Your task to perform on an android device: Do I have any events tomorrow? Image 0: 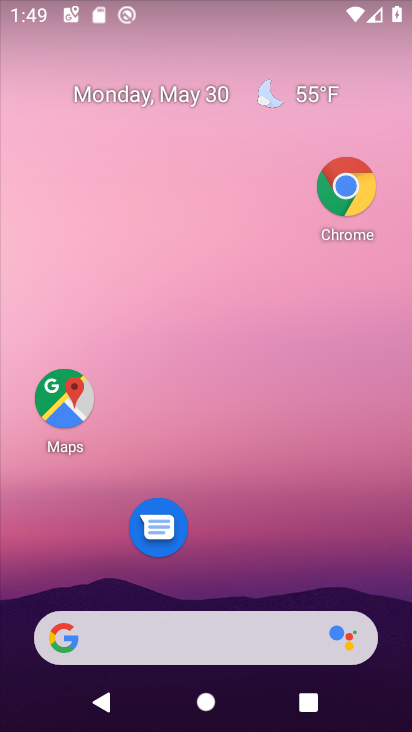
Step 0: drag from (225, 602) to (224, 2)
Your task to perform on an android device: Do I have any events tomorrow? Image 1: 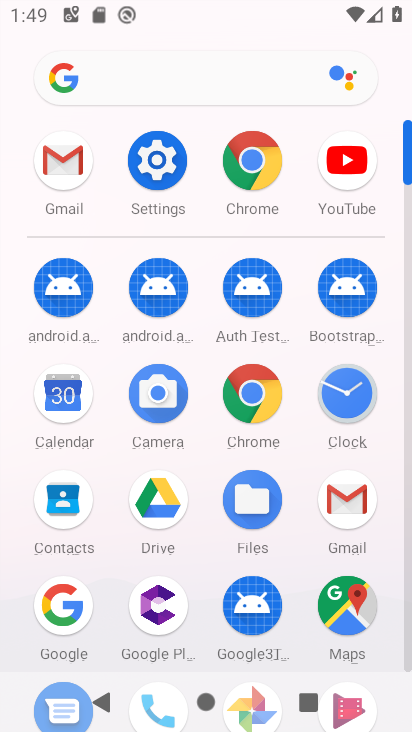
Step 1: click (64, 401)
Your task to perform on an android device: Do I have any events tomorrow? Image 2: 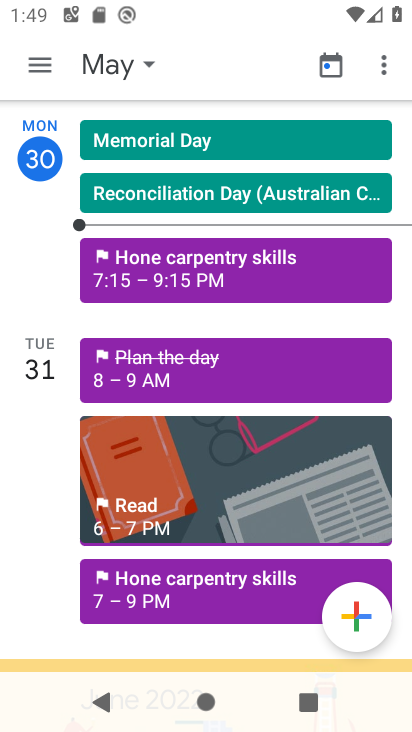
Step 2: click (135, 56)
Your task to perform on an android device: Do I have any events tomorrow? Image 3: 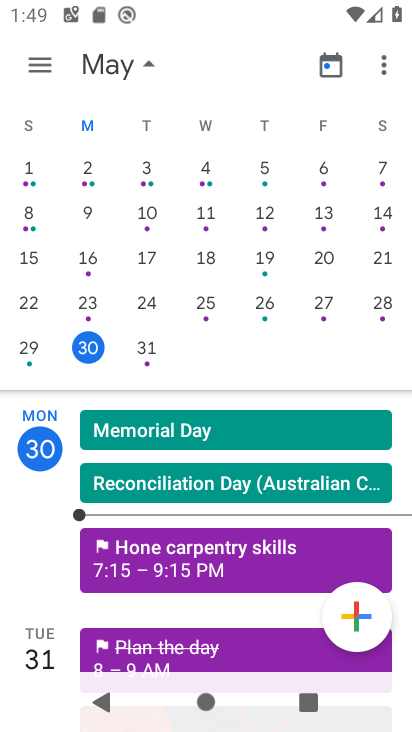
Step 3: click (152, 359)
Your task to perform on an android device: Do I have any events tomorrow? Image 4: 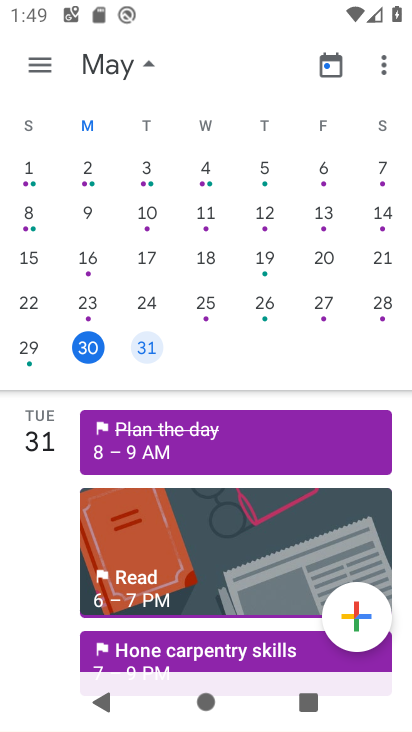
Step 4: task complete